Your task to perform on an android device: turn on data saver in the chrome app Image 0: 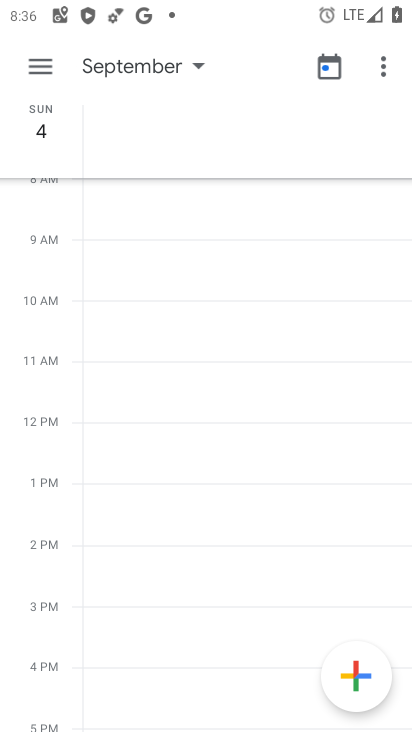
Step 0: press home button
Your task to perform on an android device: turn on data saver in the chrome app Image 1: 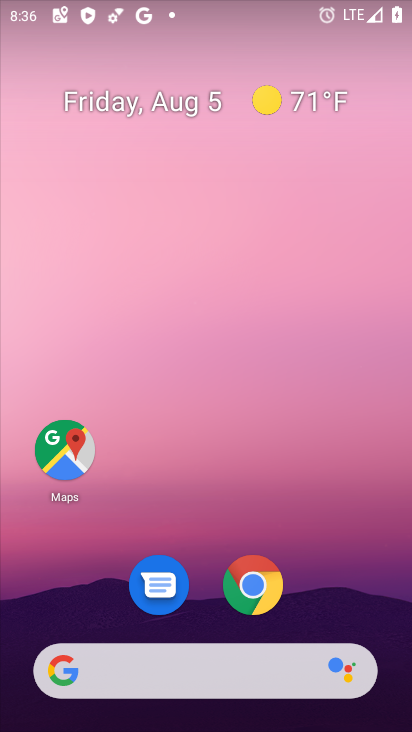
Step 1: click (259, 589)
Your task to perform on an android device: turn on data saver in the chrome app Image 2: 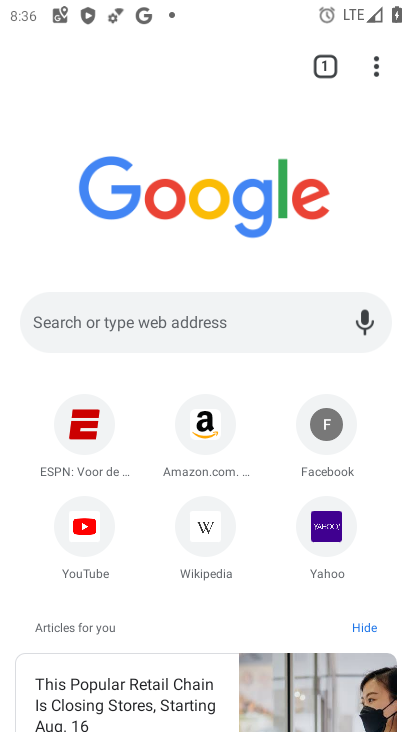
Step 2: click (372, 61)
Your task to perform on an android device: turn on data saver in the chrome app Image 3: 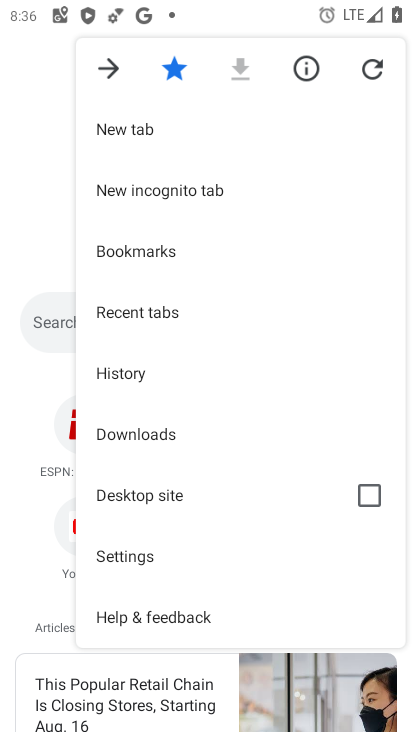
Step 3: click (159, 552)
Your task to perform on an android device: turn on data saver in the chrome app Image 4: 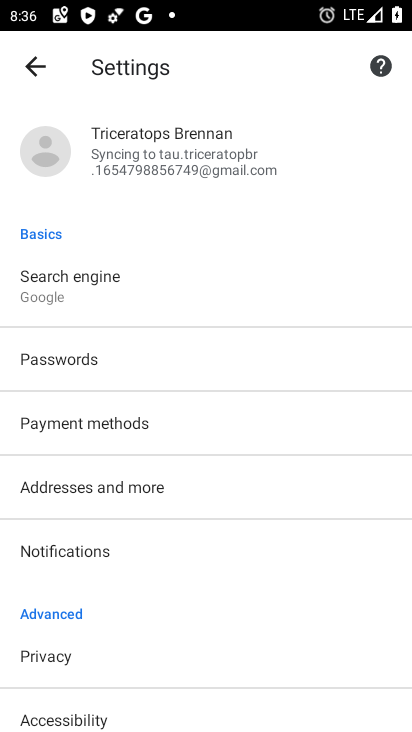
Step 4: drag from (229, 536) to (266, 33)
Your task to perform on an android device: turn on data saver in the chrome app Image 5: 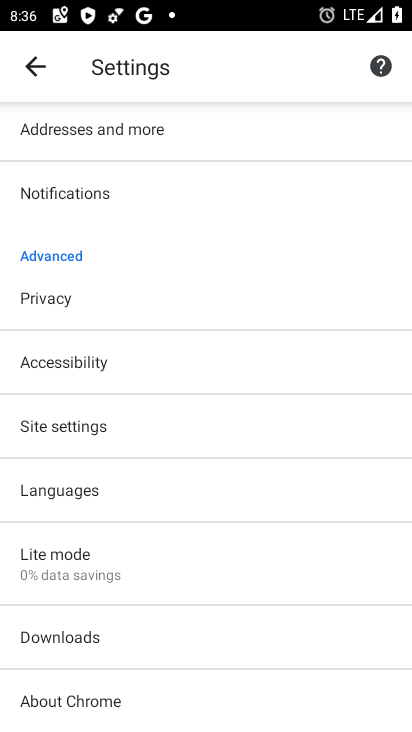
Step 5: click (128, 566)
Your task to perform on an android device: turn on data saver in the chrome app Image 6: 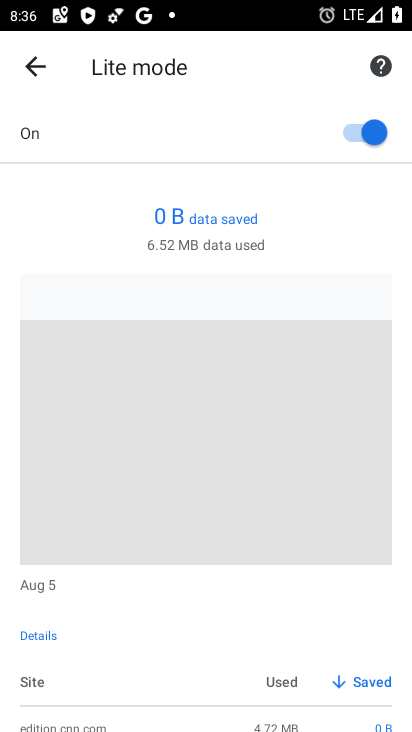
Step 6: task complete